Your task to perform on an android device: View the shopping cart on newegg.com. Search for macbook pro on newegg.com, select the first entry, add it to the cart, then select checkout. Image 0: 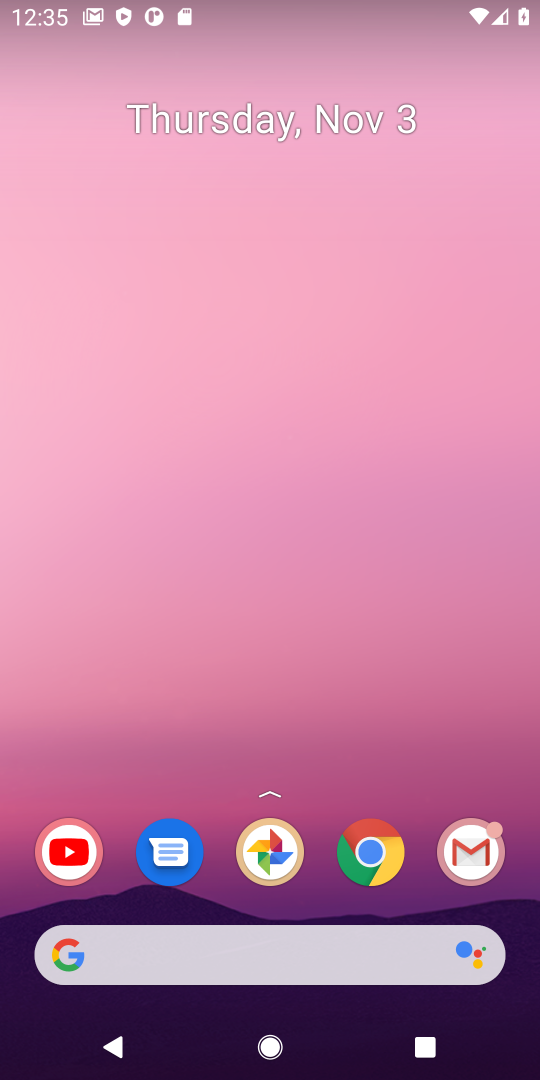
Step 0: click (366, 863)
Your task to perform on an android device: View the shopping cart on newegg.com. Search for macbook pro on newegg.com, select the first entry, add it to the cart, then select checkout. Image 1: 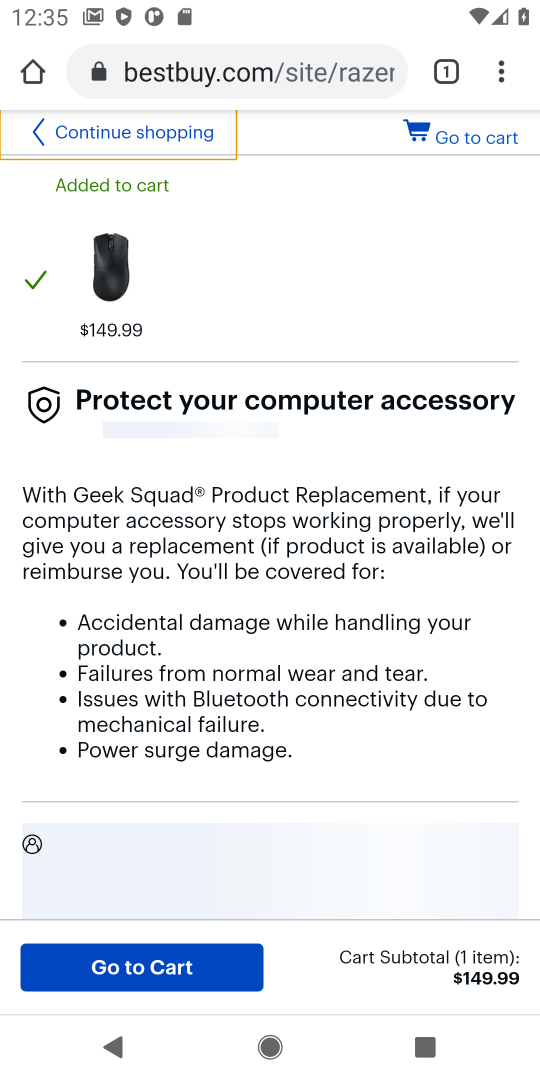
Step 1: click (230, 77)
Your task to perform on an android device: View the shopping cart on newegg.com. Search for macbook pro on newegg.com, select the first entry, add it to the cart, then select checkout. Image 2: 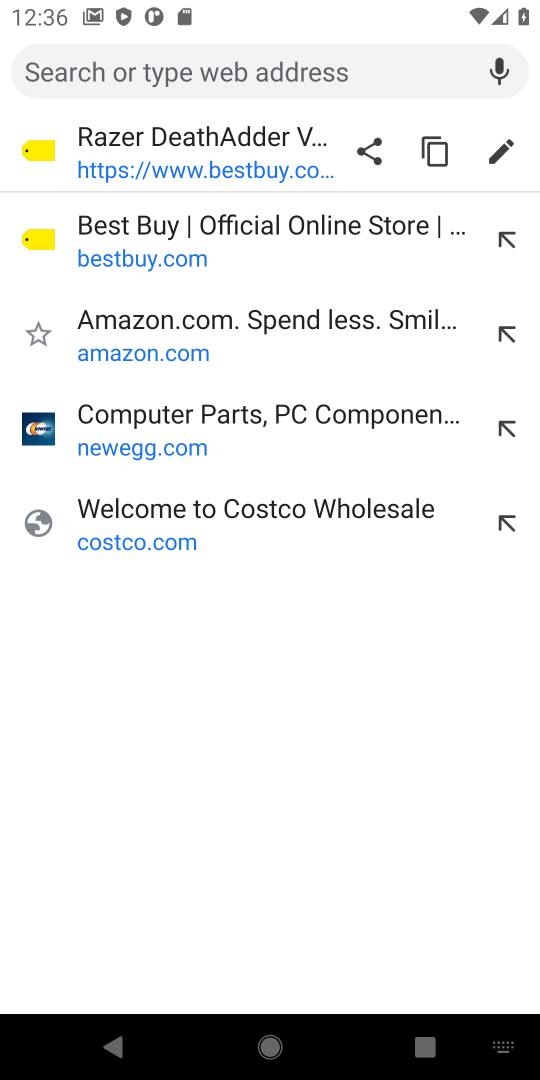
Step 2: type "newegg.com"
Your task to perform on an android device: View the shopping cart on newegg.com. Search for macbook pro on newegg.com, select the first entry, add it to the cart, then select checkout. Image 3: 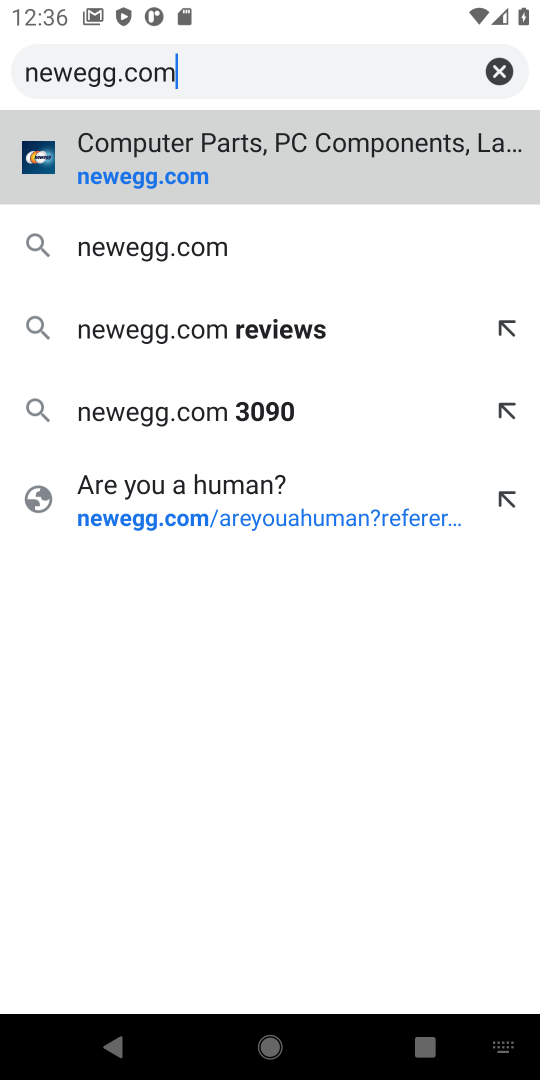
Step 3: click (145, 259)
Your task to perform on an android device: View the shopping cart on newegg.com. Search for macbook pro on newegg.com, select the first entry, add it to the cart, then select checkout. Image 4: 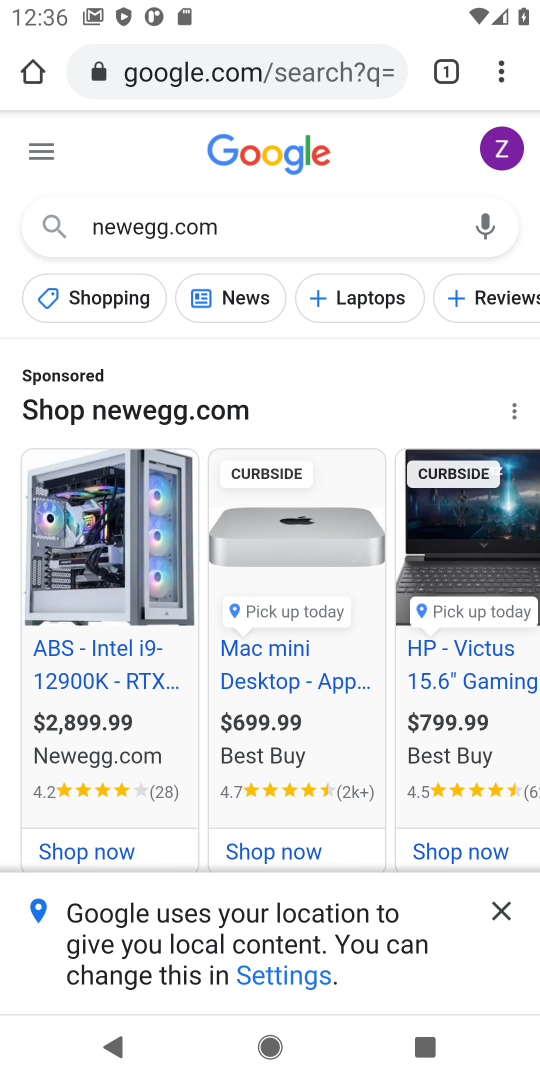
Step 4: click (503, 910)
Your task to perform on an android device: View the shopping cart on newegg.com. Search for macbook pro on newegg.com, select the first entry, add it to the cart, then select checkout. Image 5: 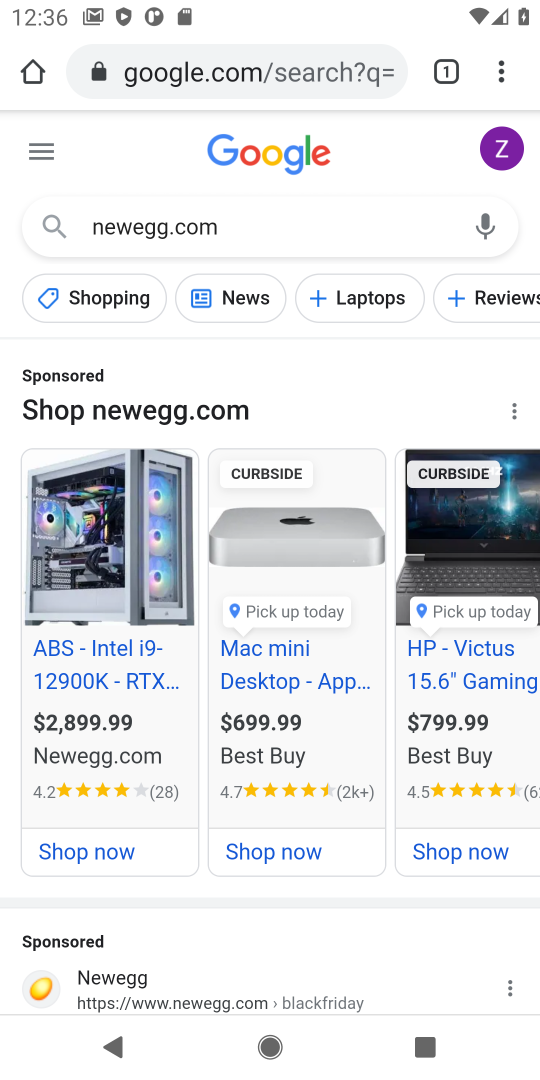
Step 5: drag from (319, 822) to (311, 188)
Your task to perform on an android device: View the shopping cart on newegg.com. Search for macbook pro on newegg.com, select the first entry, add it to the cart, then select checkout. Image 6: 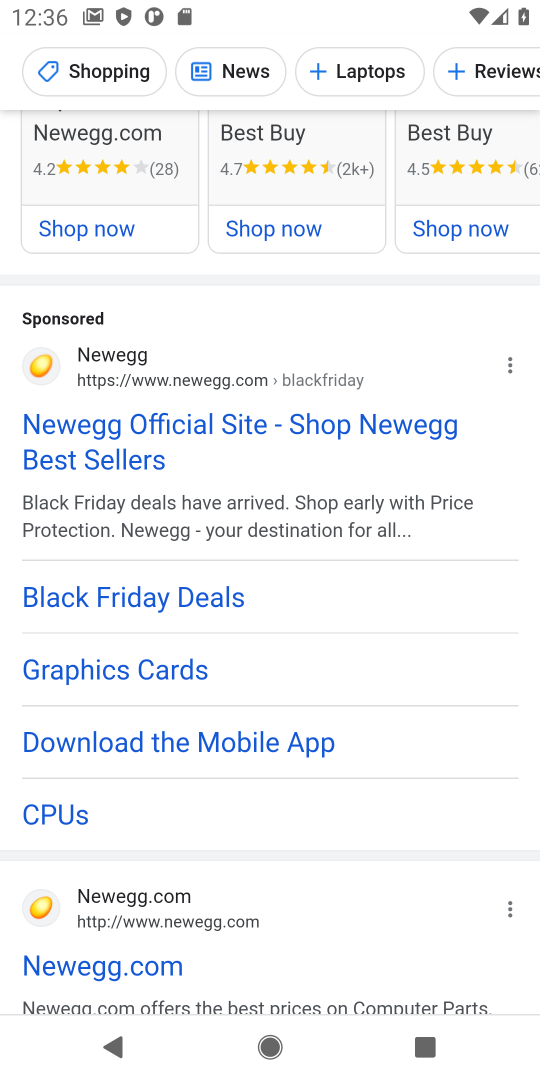
Step 6: drag from (215, 713) to (263, 275)
Your task to perform on an android device: View the shopping cart on newegg.com. Search for macbook pro on newegg.com, select the first entry, add it to the cart, then select checkout. Image 7: 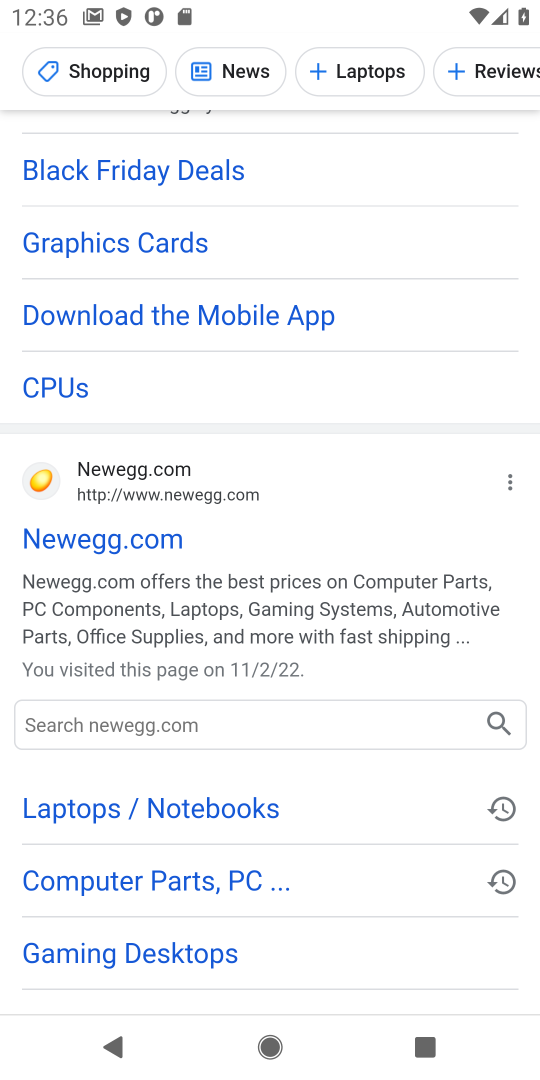
Step 7: click (92, 541)
Your task to perform on an android device: View the shopping cart on newegg.com. Search for macbook pro on newegg.com, select the first entry, add it to the cart, then select checkout. Image 8: 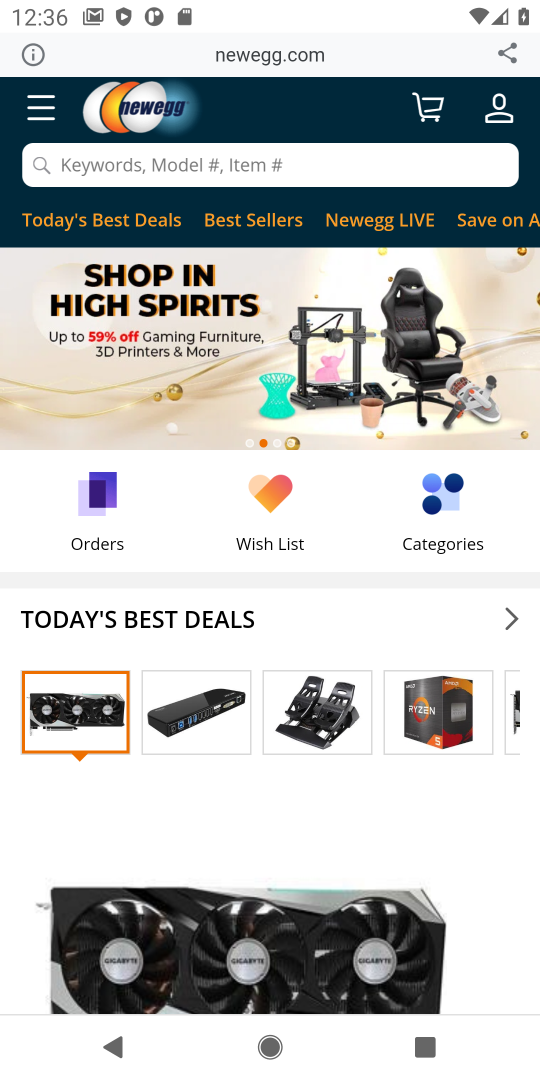
Step 8: click (426, 118)
Your task to perform on an android device: View the shopping cart on newegg.com. Search for macbook pro on newegg.com, select the first entry, add it to the cart, then select checkout. Image 9: 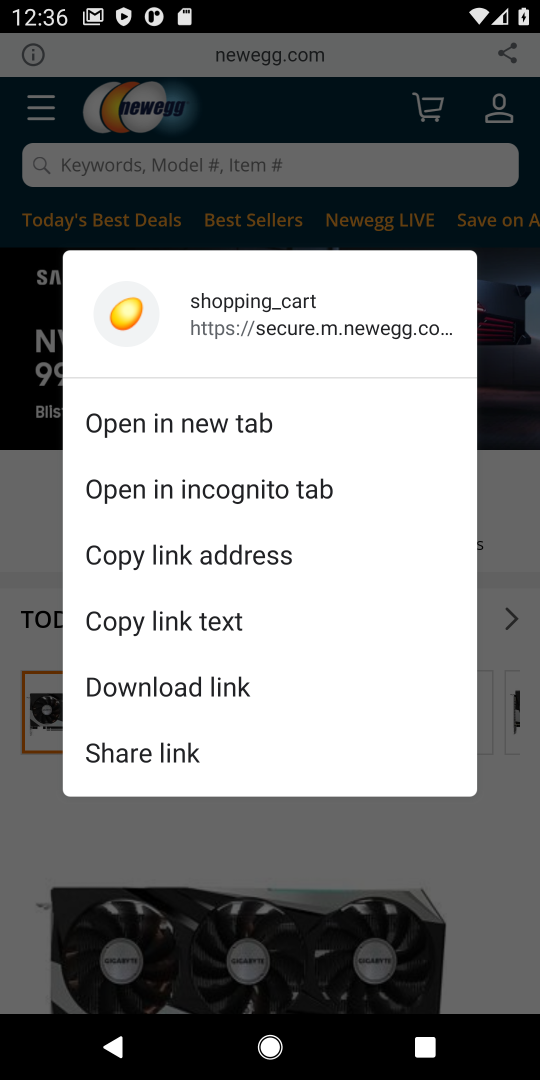
Step 9: click (437, 124)
Your task to perform on an android device: View the shopping cart on newegg.com. Search for macbook pro on newegg.com, select the first entry, add it to the cart, then select checkout. Image 10: 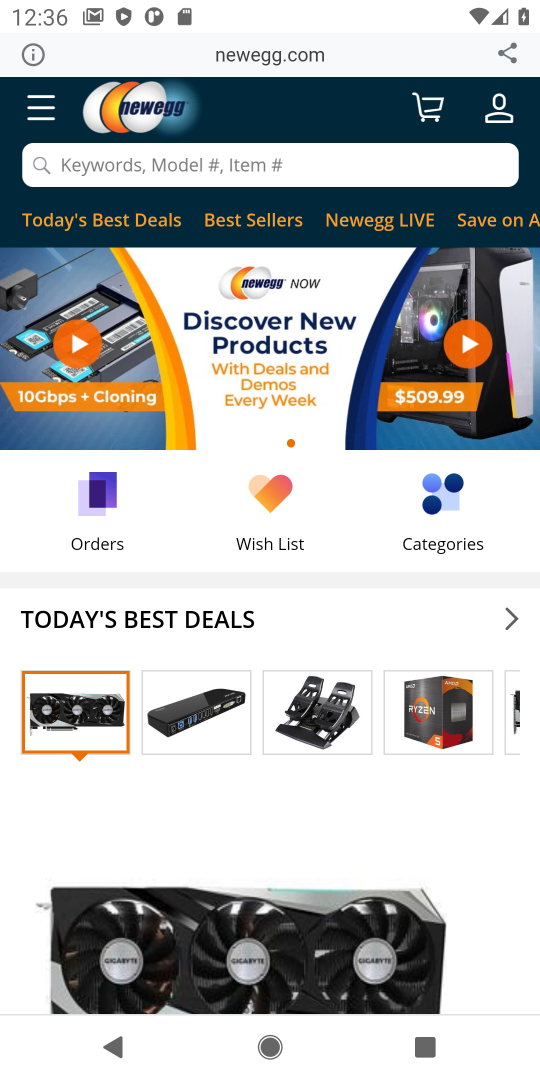
Step 10: click (429, 113)
Your task to perform on an android device: View the shopping cart on newegg.com. Search for macbook pro on newegg.com, select the first entry, add it to the cart, then select checkout. Image 11: 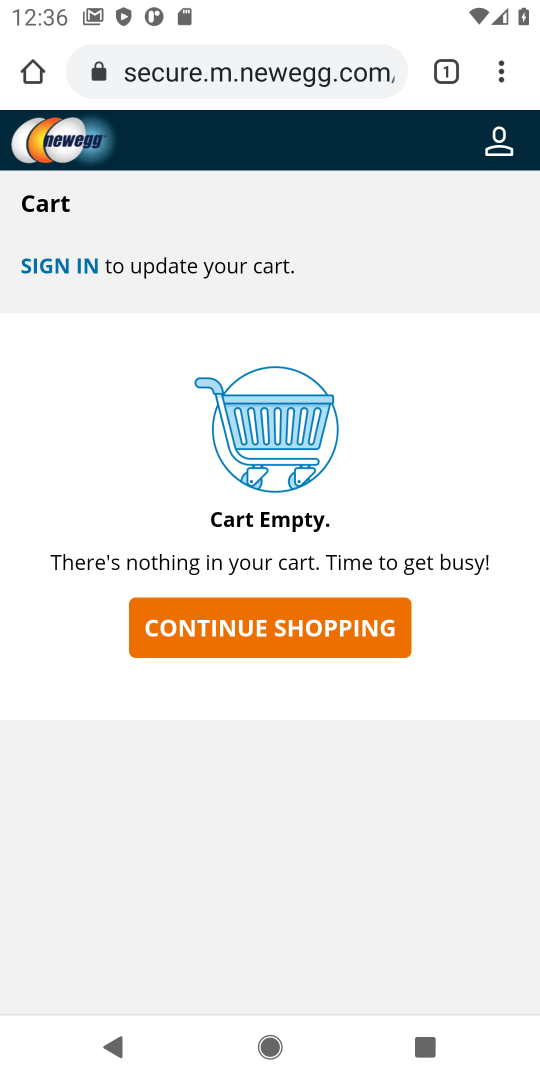
Step 11: click (332, 633)
Your task to perform on an android device: View the shopping cart on newegg.com. Search for macbook pro on newegg.com, select the first entry, add it to the cart, then select checkout. Image 12: 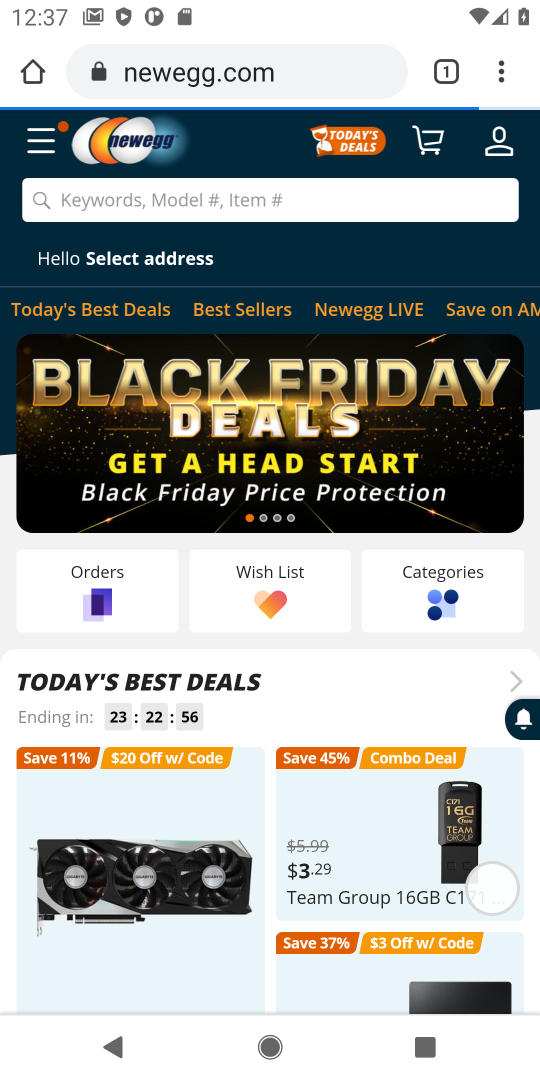
Step 12: click (211, 214)
Your task to perform on an android device: View the shopping cart on newegg.com. Search for macbook pro on newegg.com, select the first entry, add it to the cart, then select checkout. Image 13: 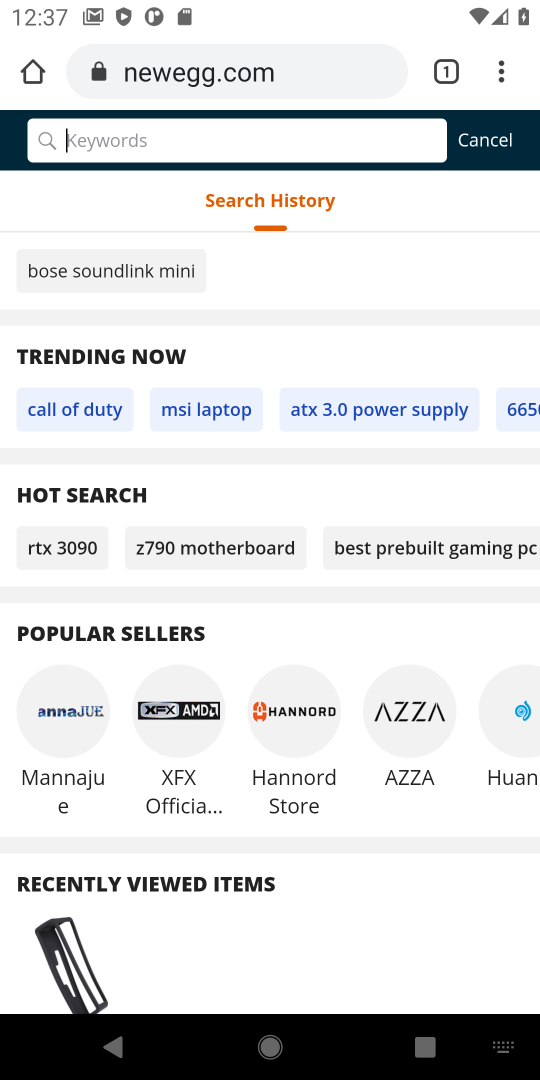
Step 13: type "macbook pro"
Your task to perform on an android device: View the shopping cart on newegg.com. Search for macbook pro on newegg.com, select the first entry, add it to the cart, then select checkout. Image 14: 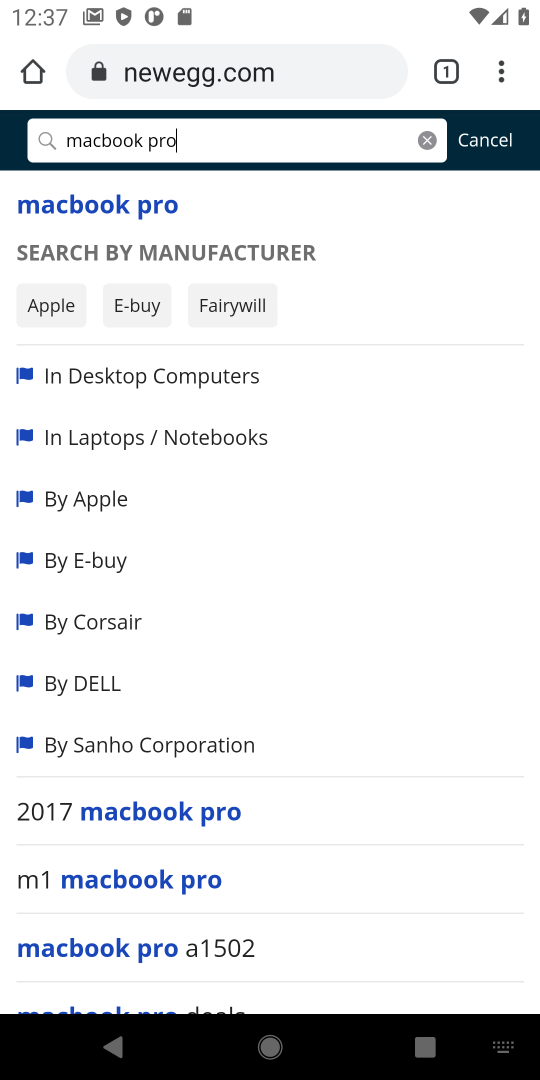
Step 14: click (84, 209)
Your task to perform on an android device: View the shopping cart on newegg.com. Search for macbook pro on newegg.com, select the first entry, add it to the cart, then select checkout. Image 15: 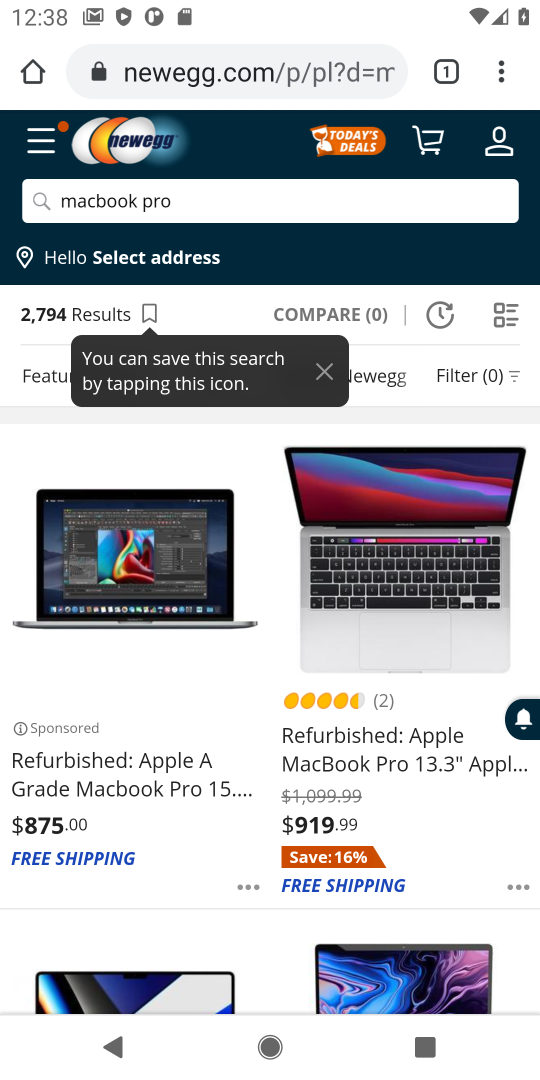
Step 15: click (168, 628)
Your task to perform on an android device: View the shopping cart on newegg.com. Search for macbook pro on newegg.com, select the first entry, add it to the cart, then select checkout. Image 16: 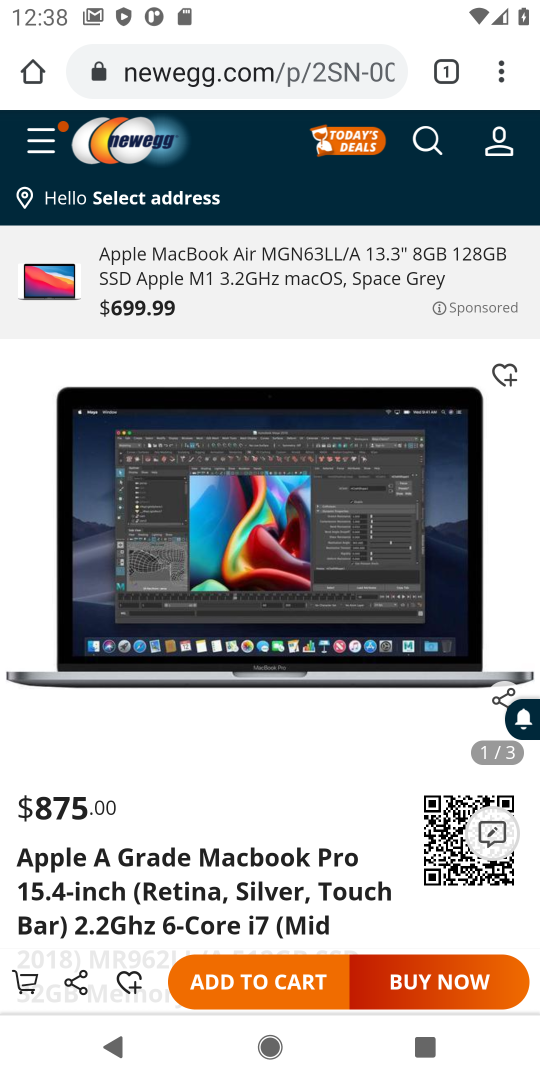
Step 16: click (249, 988)
Your task to perform on an android device: View the shopping cart on newegg.com. Search for macbook pro on newegg.com, select the first entry, add it to the cart, then select checkout. Image 17: 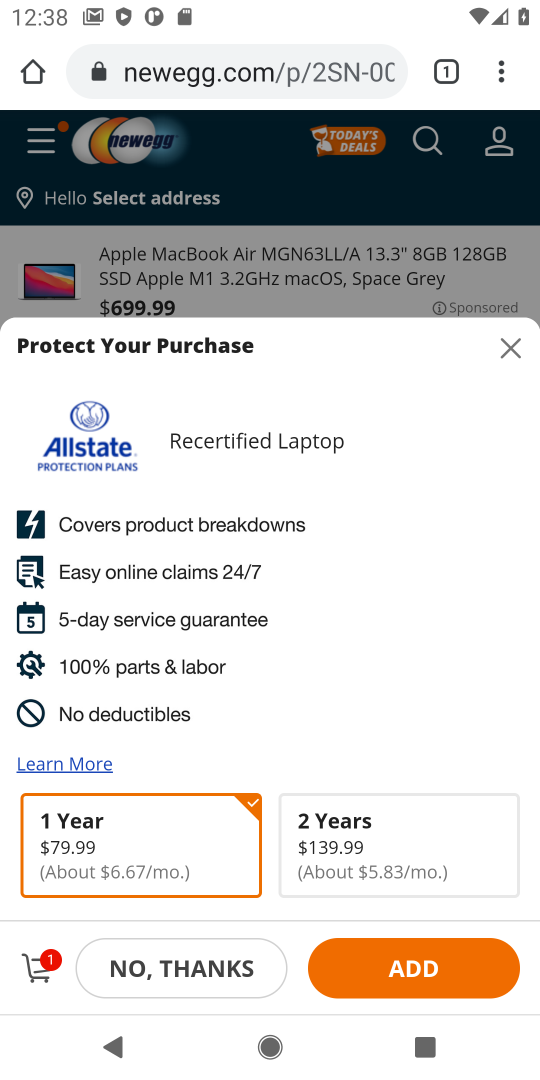
Step 17: click (517, 350)
Your task to perform on an android device: View the shopping cart on newegg.com. Search for macbook pro on newegg.com, select the first entry, add it to the cart, then select checkout. Image 18: 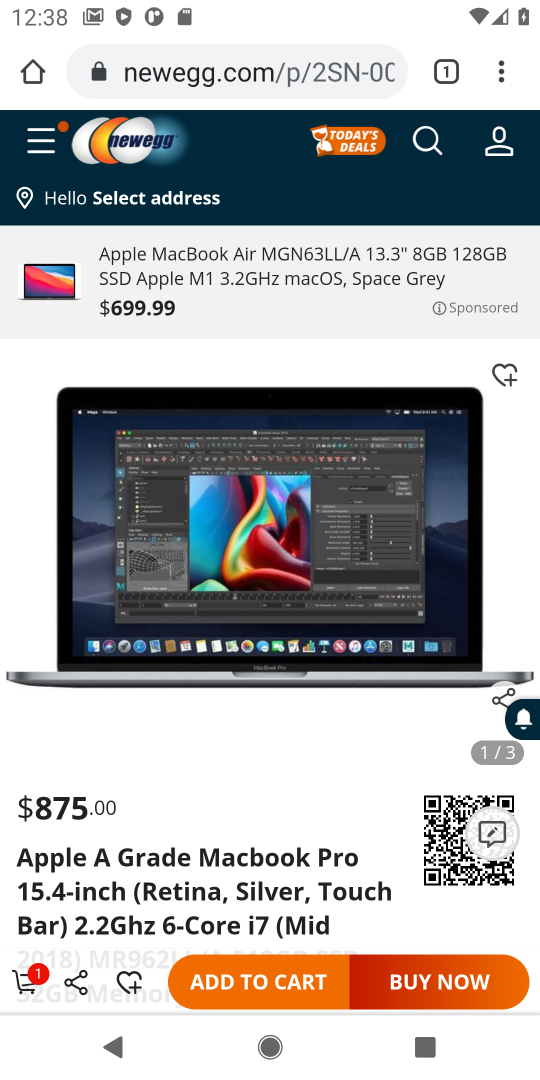
Step 18: drag from (301, 488) to (264, 722)
Your task to perform on an android device: View the shopping cart on newegg.com. Search for macbook pro on newegg.com, select the first entry, add it to the cart, then select checkout. Image 19: 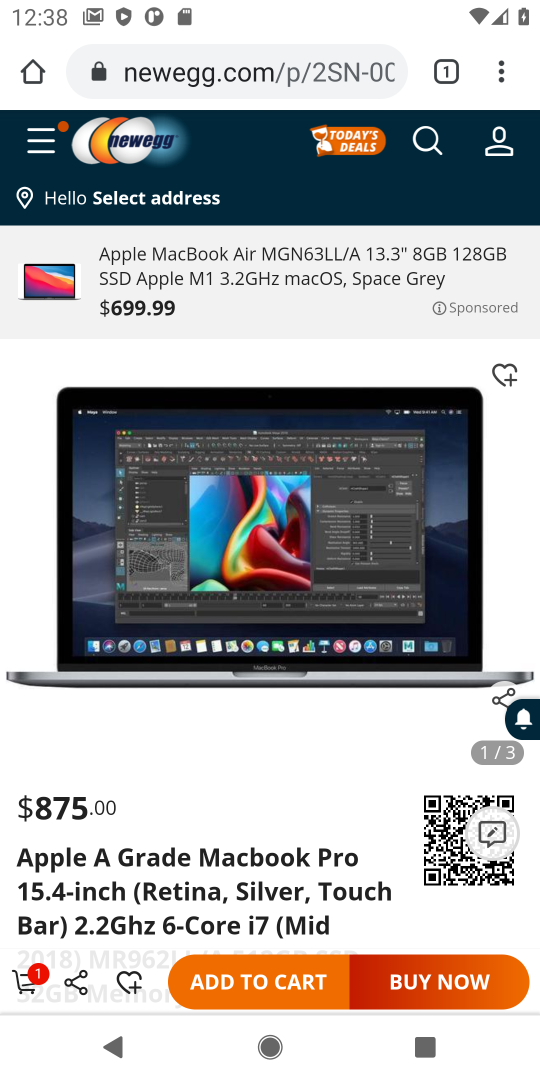
Step 19: drag from (307, 567) to (311, 248)
Your task to perform on an android device: View the shopping cart on newegg.com. Search for macbook pro on newegg.com, select the first entry, add it to the cart, then select checkout. Image 20: 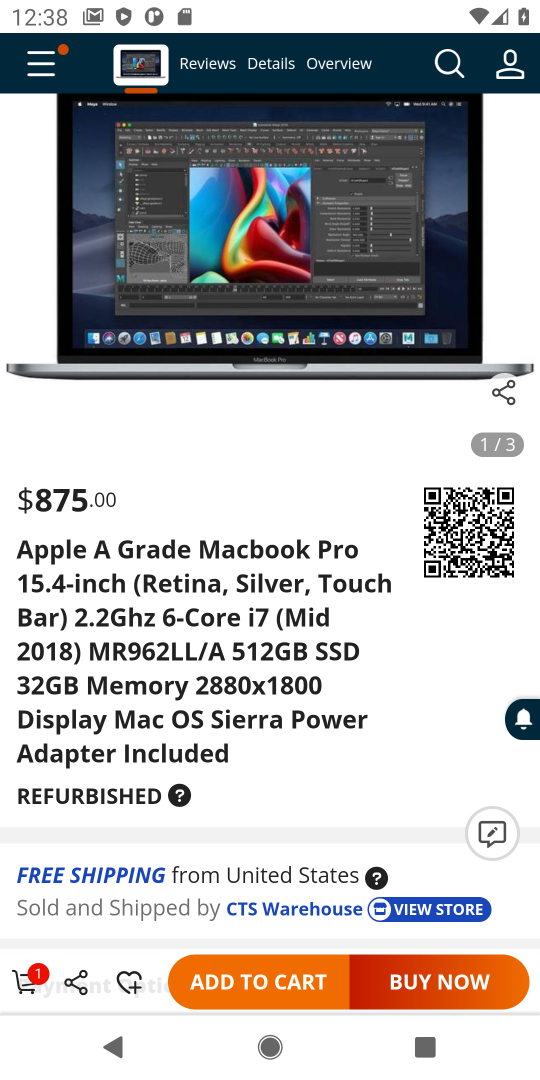
Step 20: drag from (245, 633) to (243, 303)
Your task to perform on an android device: View the shopping cart on newegg.com. Search for macbook pro on newegg.com, select the first entry, add it to the cart, then select checkout. Image 21: 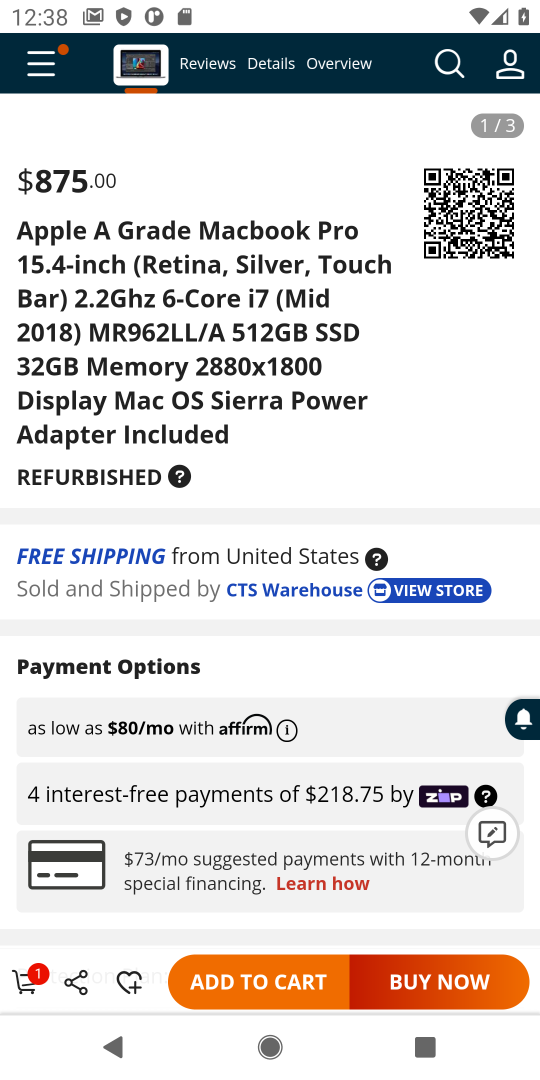
Step 21: drag from (243, 609) to (249, 338)
Your task to perform on an android device: View the shopping cart on newegg.com. Search for macbook pro on newegg.com, select the first entry, add it to the cart, then select checkout. Image 22: 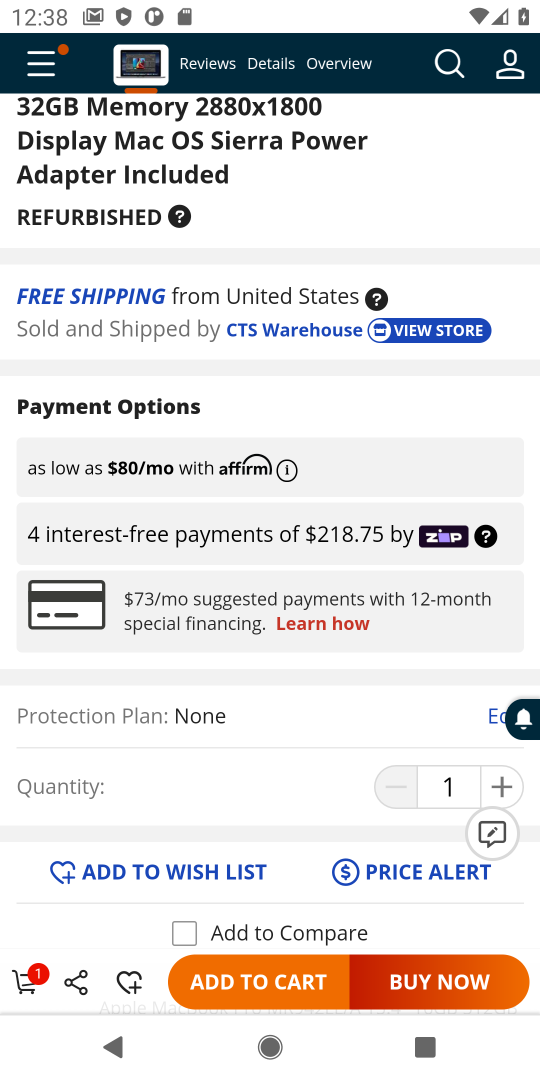
Step 22: click (34, 985)
Your task to perform on an android device: View the shopping cart on newegg.com. Search for macbook pro on newegg.com, select the first entry, add it to the cart, then select checkout. Image 23: 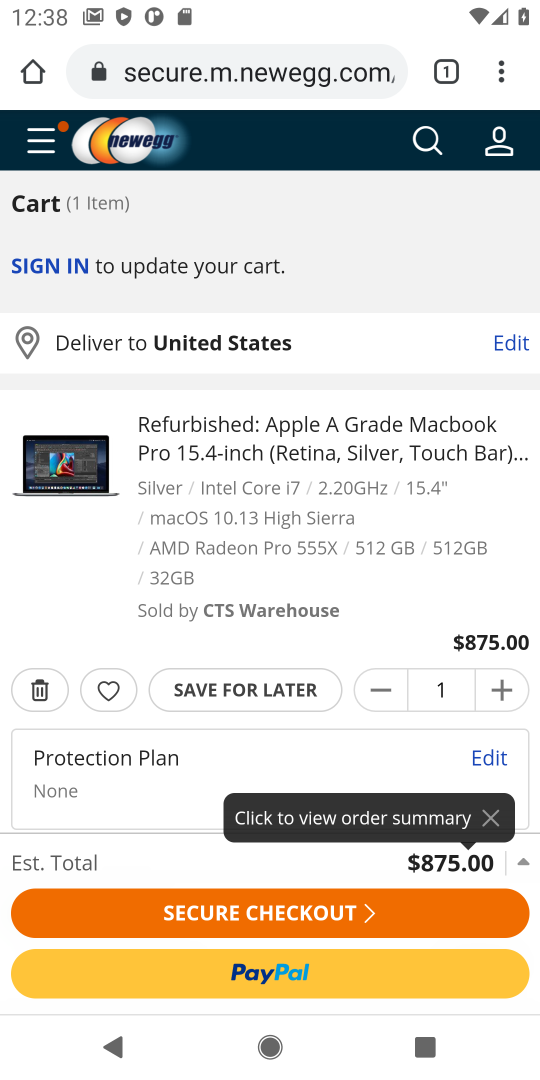
Step 23: click (252, 966)
Your task to perform on an android device: View the shopping cart on newegg.com. Search for macbook pro on newegg.com, select the first entry, add it to the cart, then select checkout. Image 24: 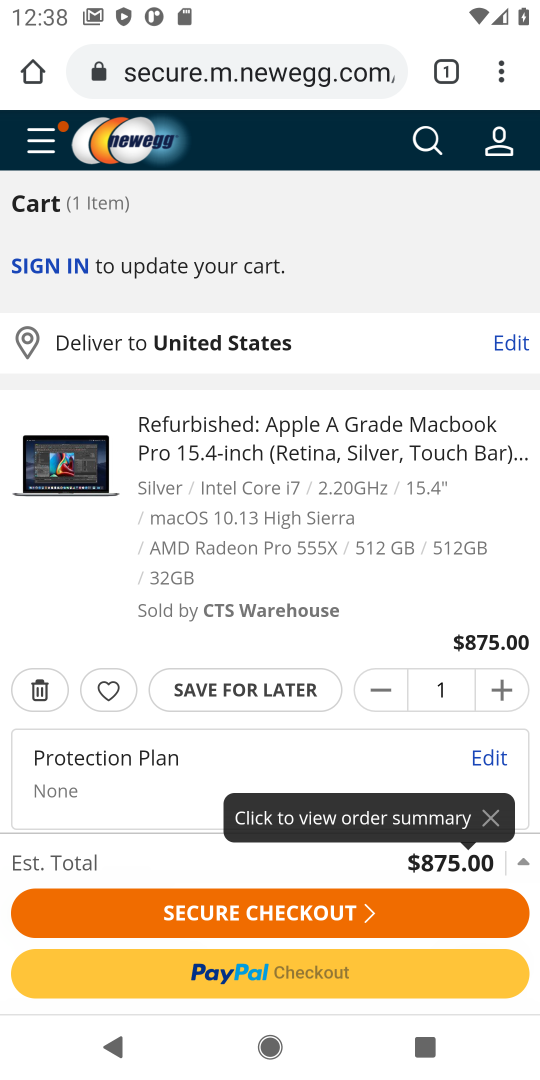
Step 24: click (262, 915)
Your task to perform on an android device: View the shopping cart on newegg.com. Search for macbook pro on newegg.com, select the first entry, add it to the cart, then select checkout. Image 25: 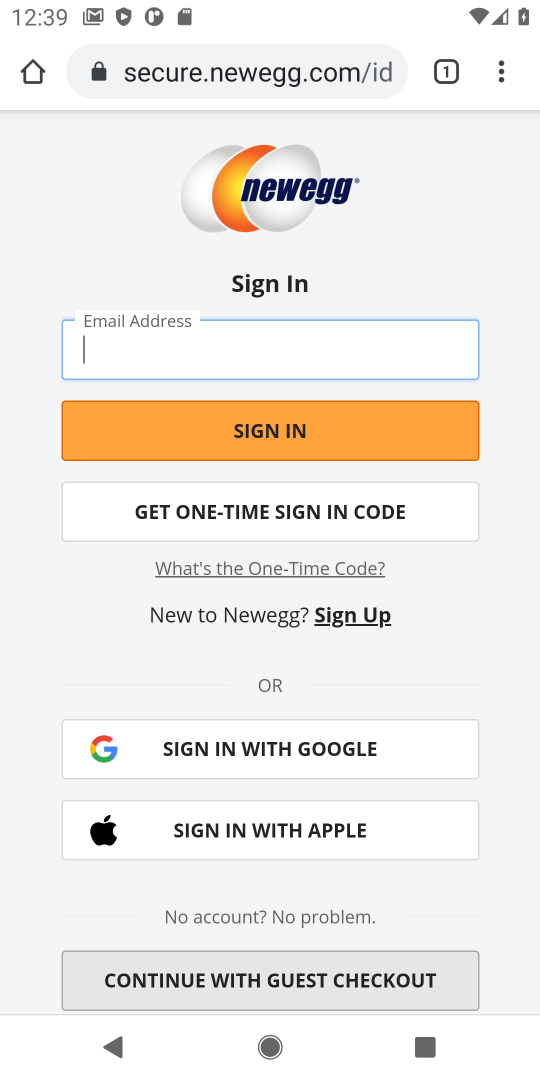
Step 25: task complete